Your task to perform on an android device: Open Chrome and go to settings Image 0: 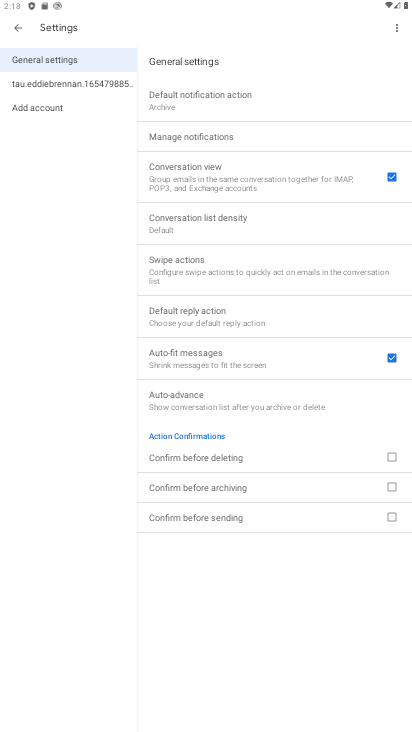
Step 0: press home button
Your task to perform on an android device: Open Chrome and go to settings Image 1: 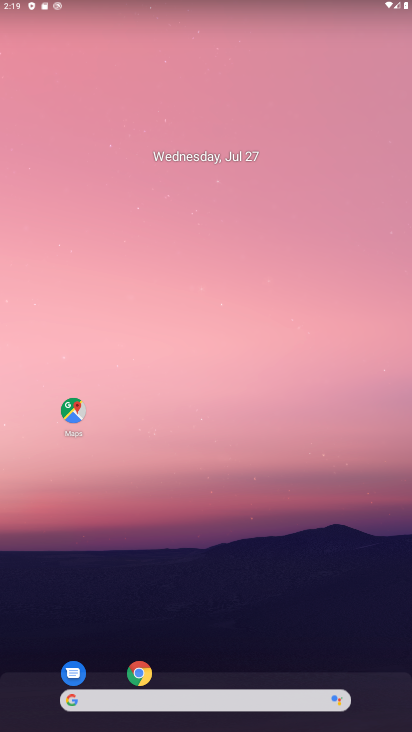
Step 1: click (141, 674)
Your task to perform on an android device: Open Chrome and go to settings Image 2: 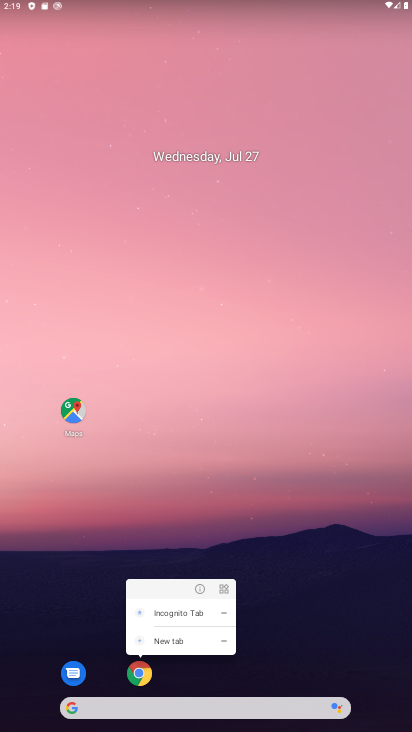
Step 2: click (140, 673)
Your task to perform on an android device: Open Chrome and go to settings Image 3: 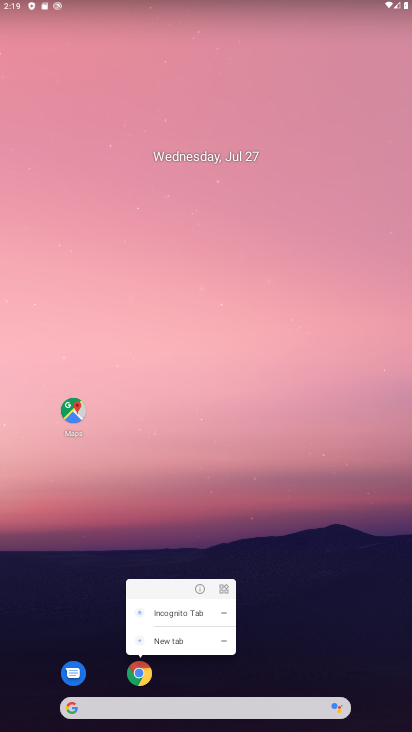
Step 3: click (143, 670)
Your task to perform on an android device: Open Chrome and go to settings Image 4: 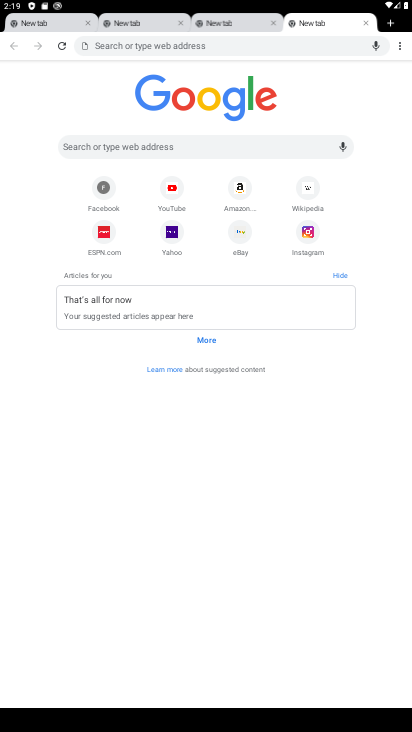
Step 4: click (397, 46)
Your task to perform on an android device: Open Chrome and go to settings Image 5: 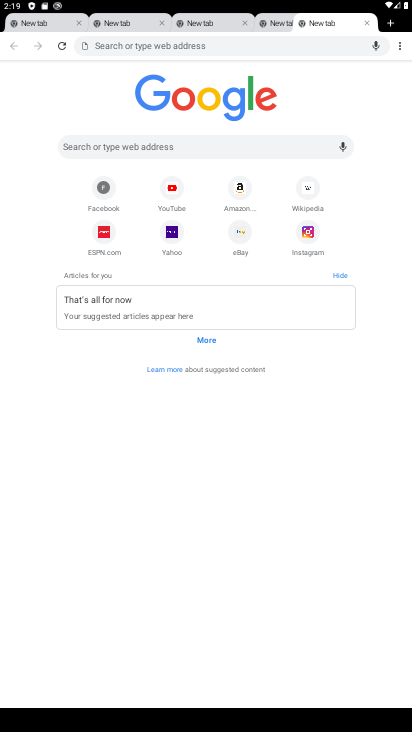
Step 5: click (397, 50)
Your task to perform on an android device: Open Chrome and go to settings Image 6: 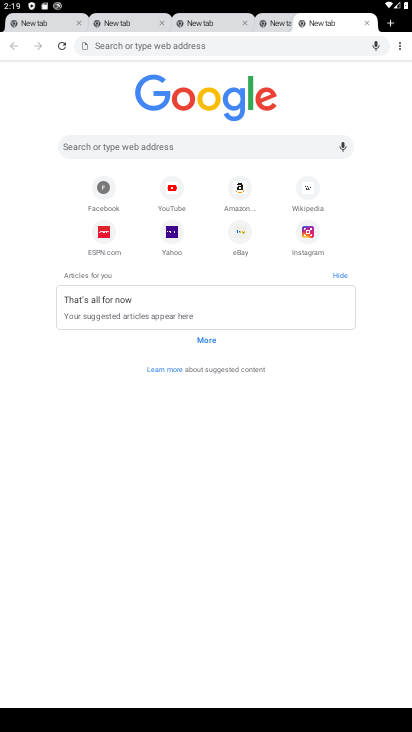
Step 6: task complete